Your task to perform on an android device: Open the Play Movies app and select the watchlist tab. Image 0: 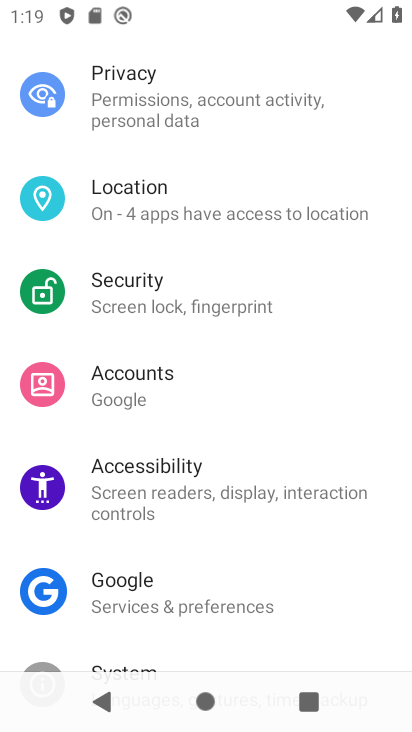
Step 0: press home button
Your task to perform on an android device: Open the Play Movies app and select the watchlist tab. Image 1: 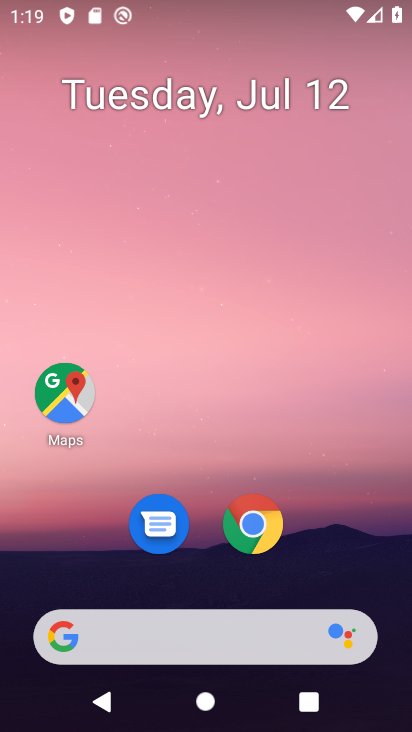
Step 1: drag from (326, 529) to (330, 55)
Your task to perform on an android device: Open the Play Movies app and select the watchlist tab. Image 2: 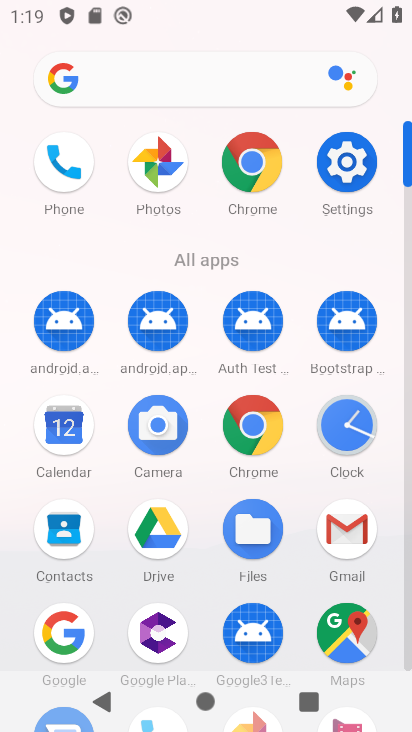
Step 2: drag from (310, 573) to (350, 139)
Your task to perform on an android device: Open the Play Movies app and select the watchlist tab. Image 3: 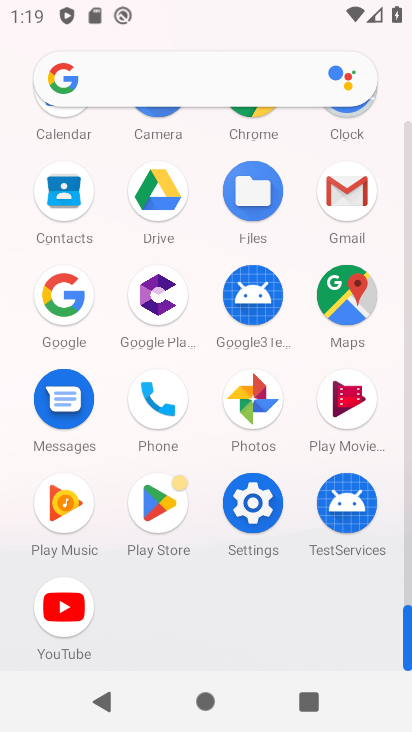
Step 3: click (344, 399)
Your task to perform on an android device: Open the Play Movies app and select the watchlist tab. Image 4: 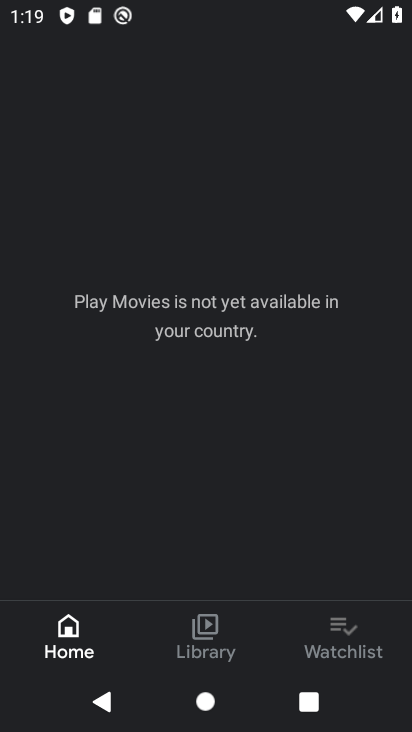
Step 4: click (340, 640)
Your task to perform on an android device: Open the Play Movies app and select the watchlist tab. Image 5: 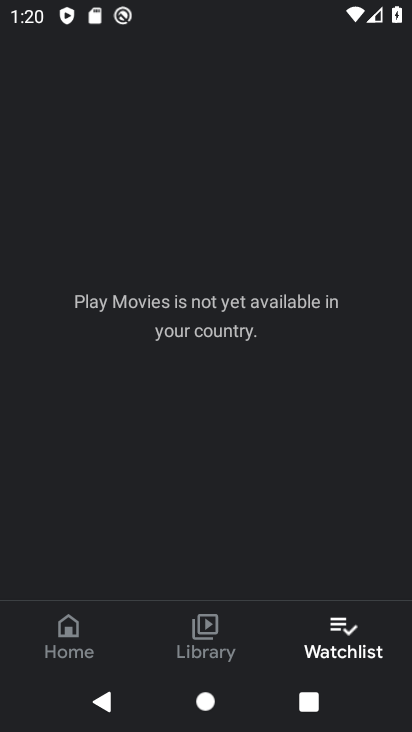
Step 5: task complete